Your task to perform on an android device: Go to wifi settings Image 0: 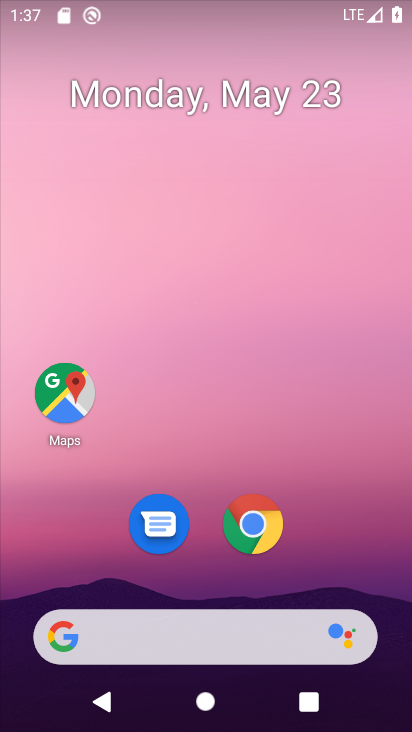
Step 0: drag from (284, 420) to (277, 0)
Your task to perform on an android device: Go to wifi settings Image 1: 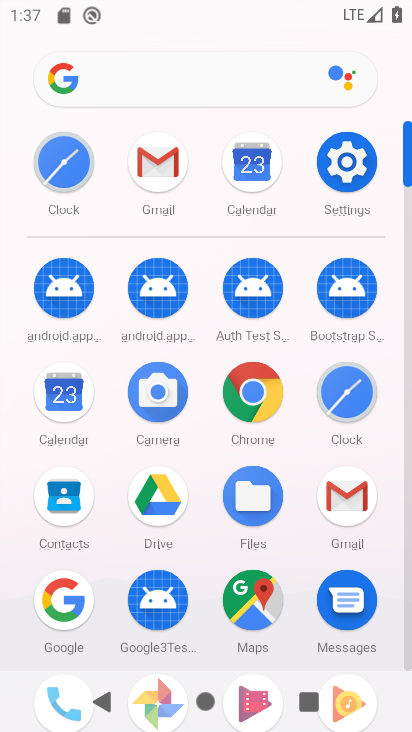
Step 1: click (340, 161)
Your task to perform on an android device: Go to wifi settings Image 2: 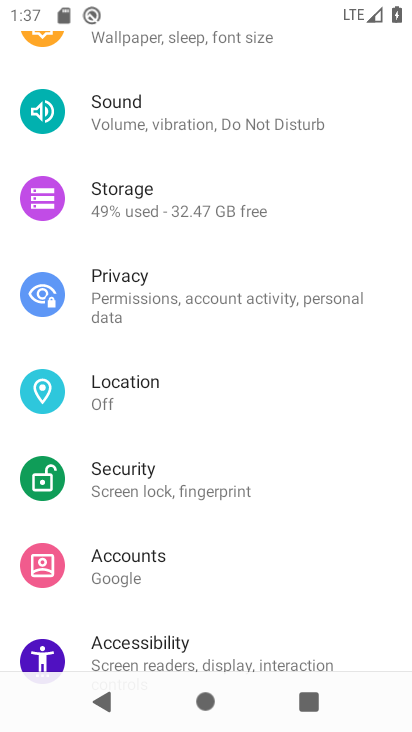
Step 2: drag from (266, 212) to (259, 621)
Your task to perform on an android device: Go to wifi settings Image 3: 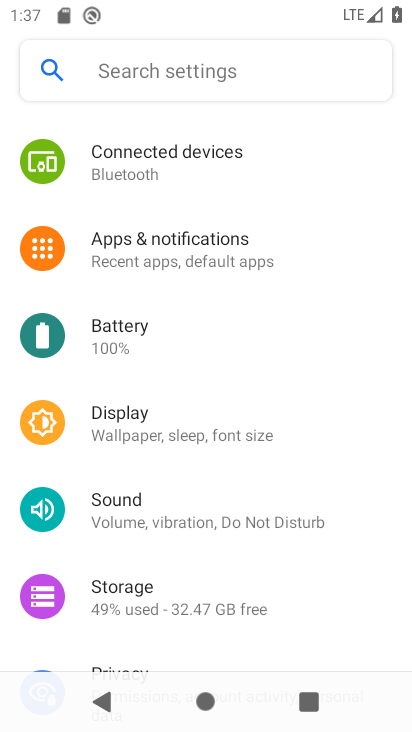
Step 3: drag from (180, 246) to (233, 511)
Your task to perform on an android device: Go to wifi settings Image 4: 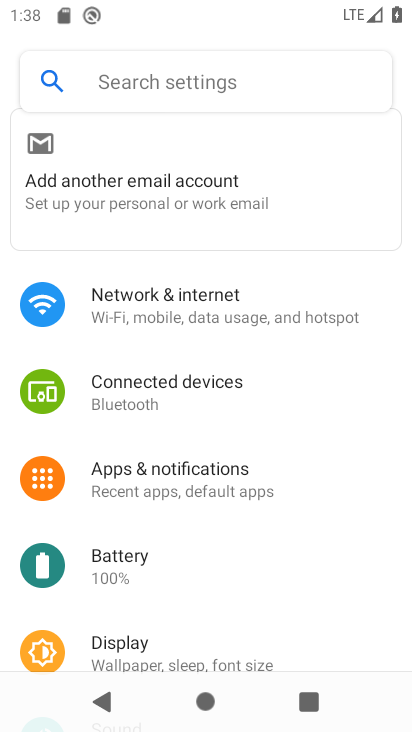
Step 4: click (178, 299)
Your task to perform on an android device: Go to wifi settings Image 5: 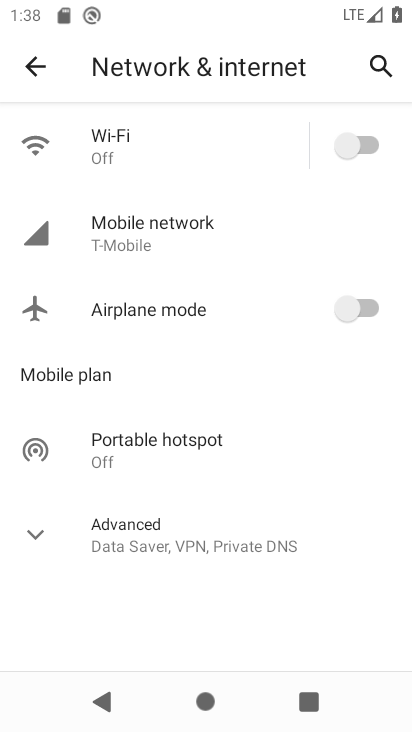
Step 5: click (181, 147)
Your task to perform on an android device: Go to wifi settings Image 6: 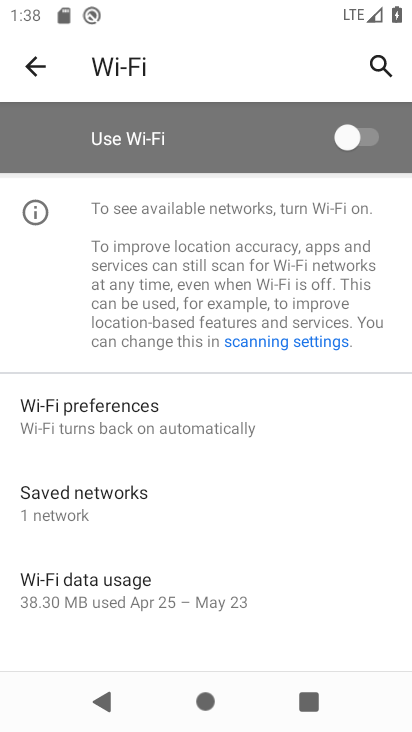
Step 6: task complete